Your task to perform on an android device: change the clock display to show seconds Image 0: 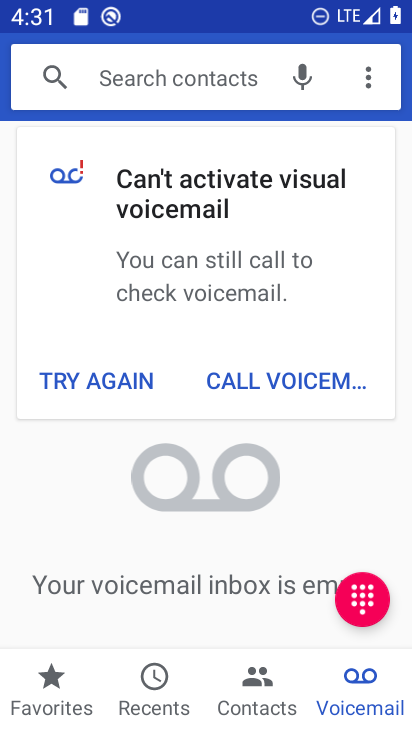
Step 0: press home button
Your task to perform on an android device: change the clock display to show seconds Image 1: 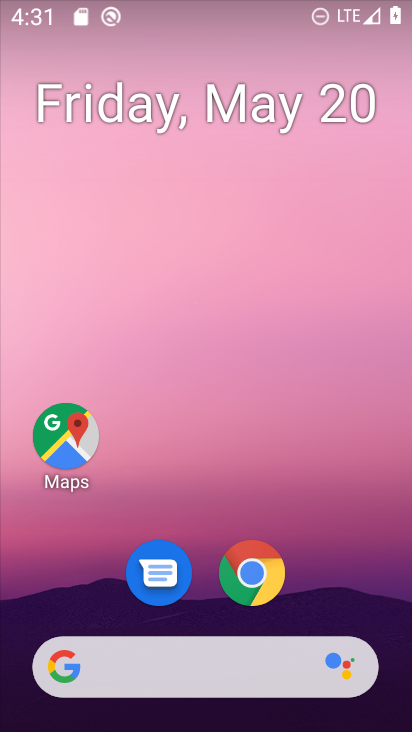
Step 1: drag from (372, 571) to (312, 189)
Your task to perform on an android device: change the clock display to show seconds Image 2: 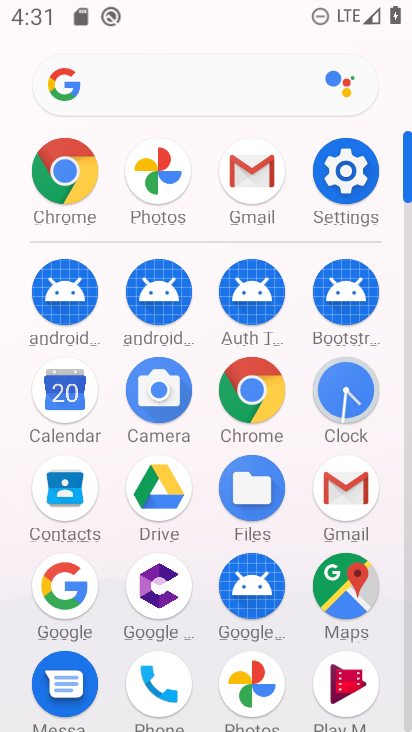
Step 2: click (366, 398)
Your task to perform on an android device: change the clock display to show seconds Image 3: 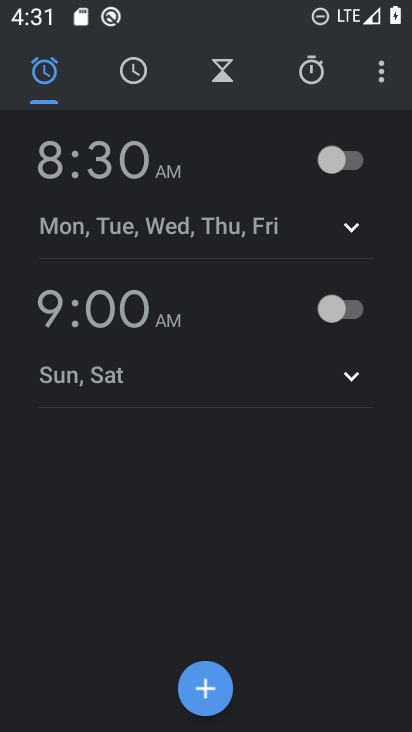
Step 3: click (386, 81)
Your task to perform on an android device: change the clock display to show seconds Image 4: 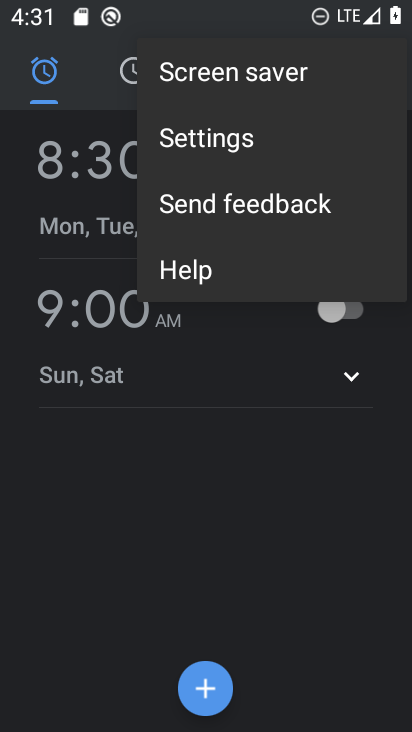
Step 4: click (349, 152)
Your task to perform on an android device: change the clock display to show seconds Image 5: 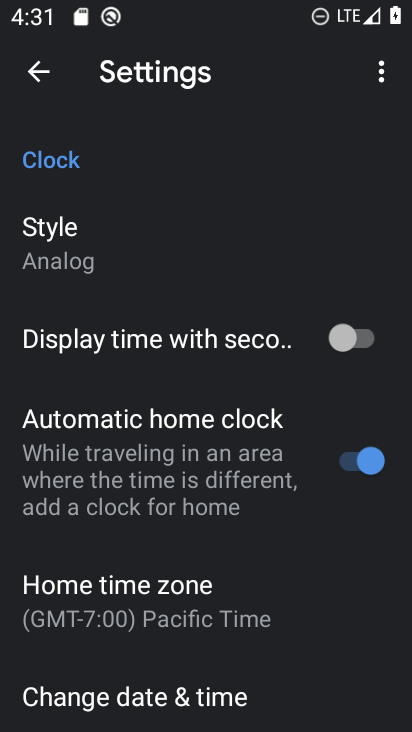
Step 5: click (360, 331)
Your task to perform on an android device: change the clock display to show seconds Image 6: 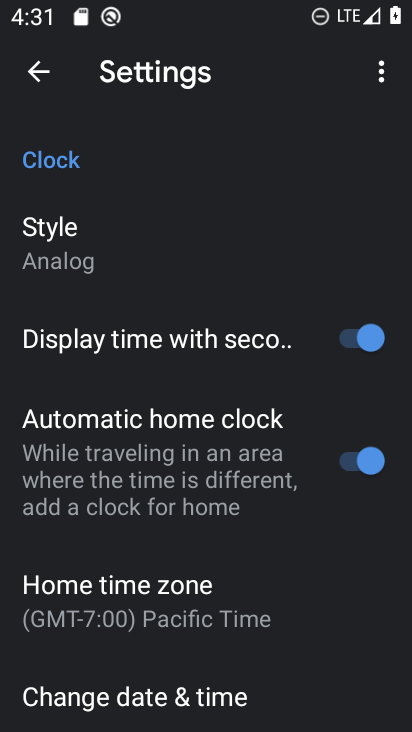
Step 6: task complete